Your task to perform on an android device: See recent photos Image 0: 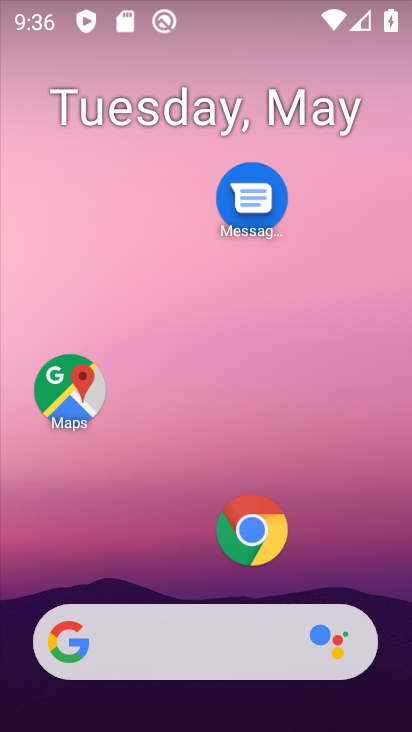
Step 0: drag from (213, 591) to (181, 155)
Your task to perform on an android device: See recent photos Image 1: 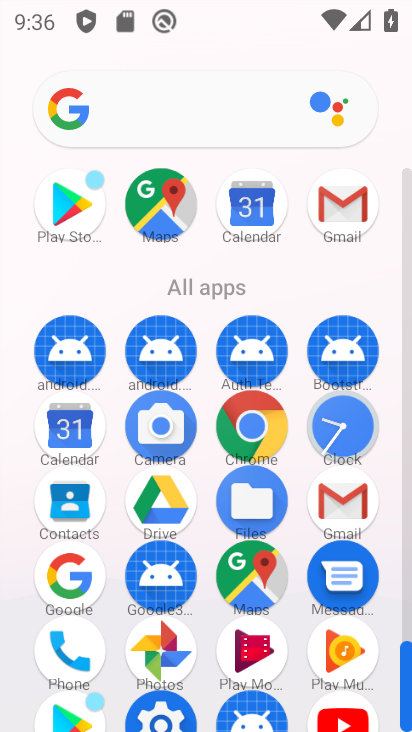
Step 1: click (163, 650)
Your task to perform on an android device: See recent photos Image 2: 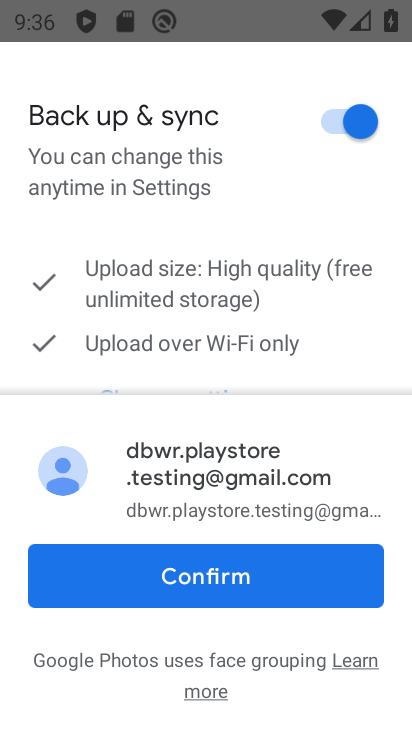
Step 2: click (220, 585)
Your task to perform on an android device: See recent photos Image 3: 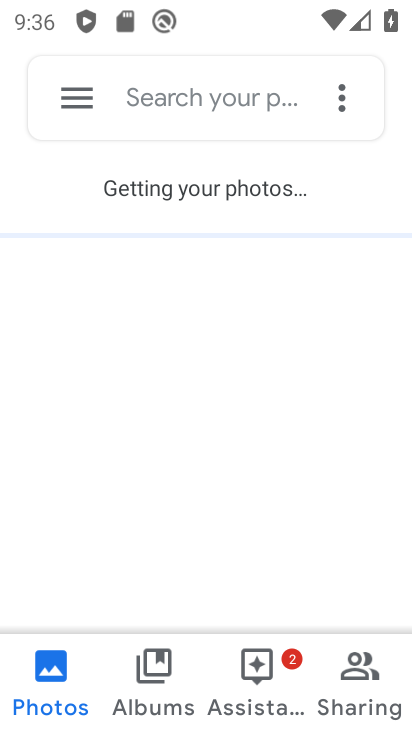
Step 3: click (86, 96)
Your task to perform on an android device: See recent photos Image 4: 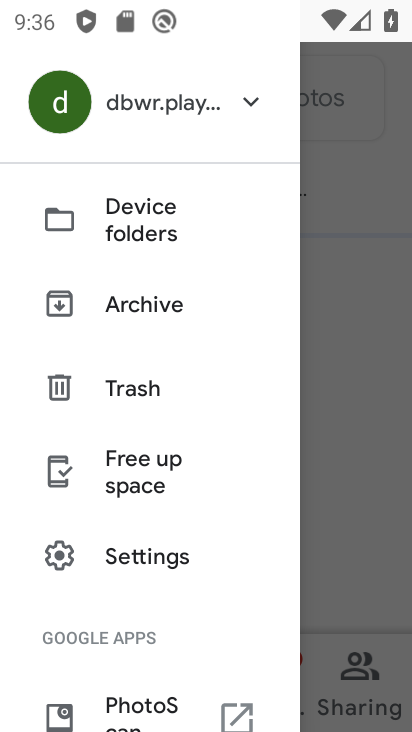
Step 4: drag from (157, 575) to (157, 279)
Your task to perform on an android device: See recent photos Image 5: 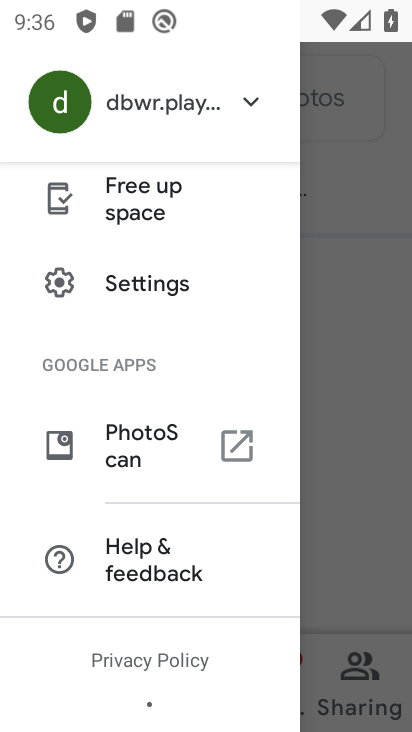
Step 5: press back button
Your task to perform on an android device: See recent photos Image 6: 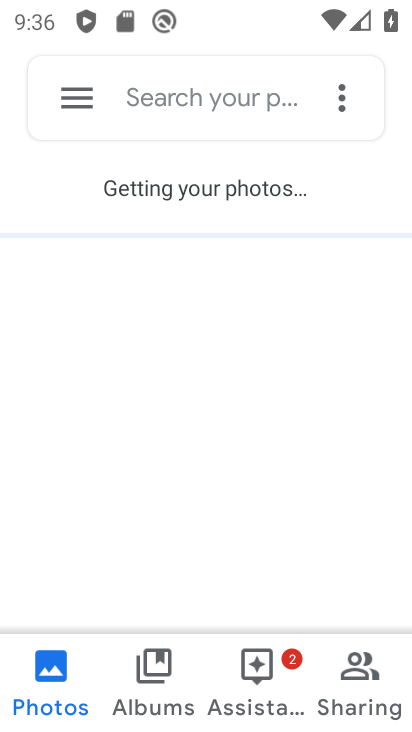
Step 6: click (168, 691)
Your task to perform on an android device: See recent photos Image 7: 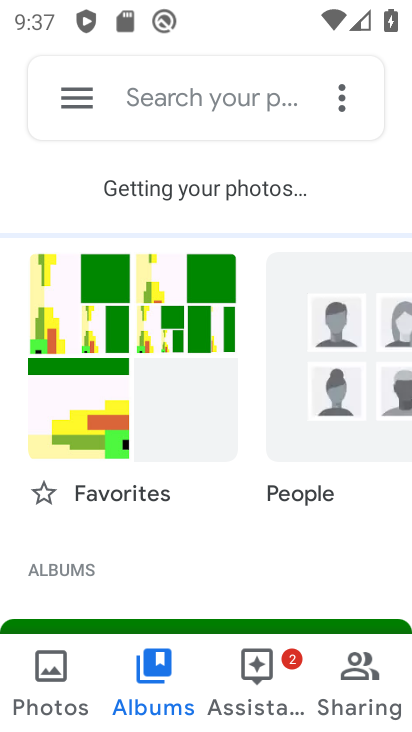
Step 7: task complete